Your task to perform on an android device: check the backup settings in the google photos Image 0: 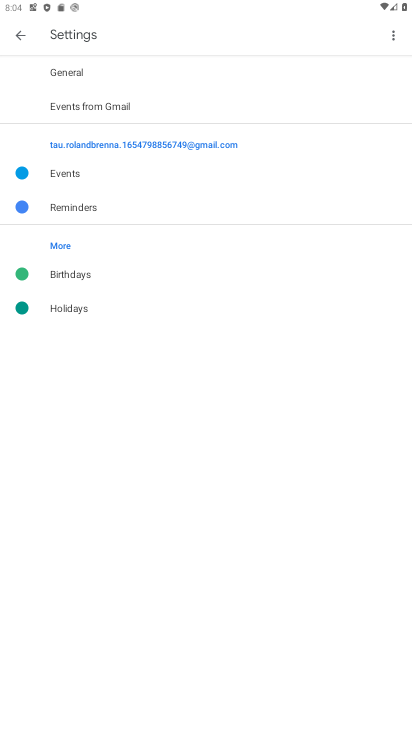
Step 0: press home button
Your task to perform on an android device: check the backup settings in the google photos Image 1: 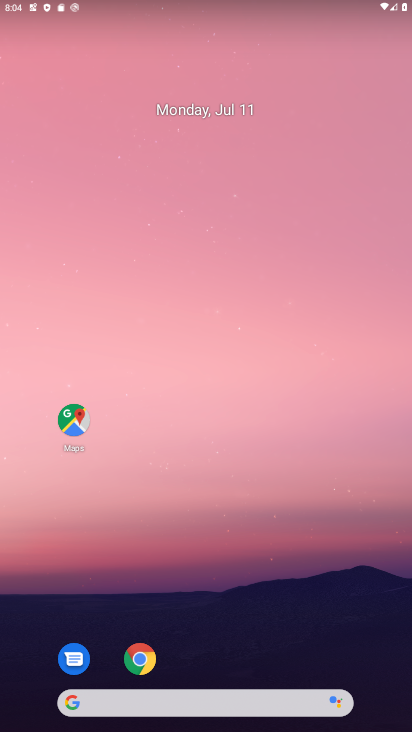
Step 1: drag from (203, 555) to (254, 367)
Your task to perform on an android device: check the backup settings in the google photos Image 2: 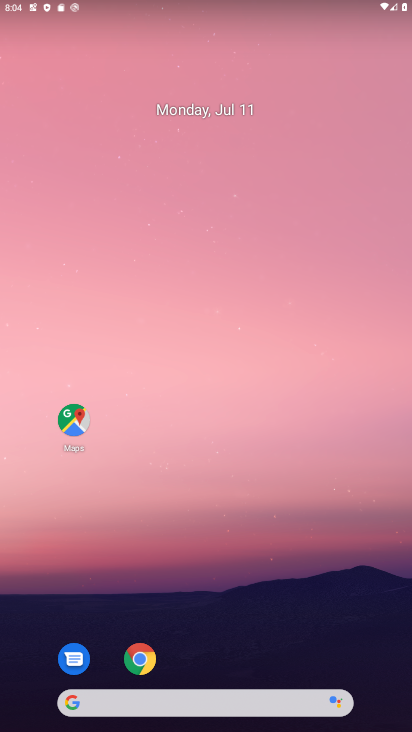
Step 2: drag from (203, 601) to (258, 323)
Your task to perform on an android device: check the backup settings in the google photos Image 3: 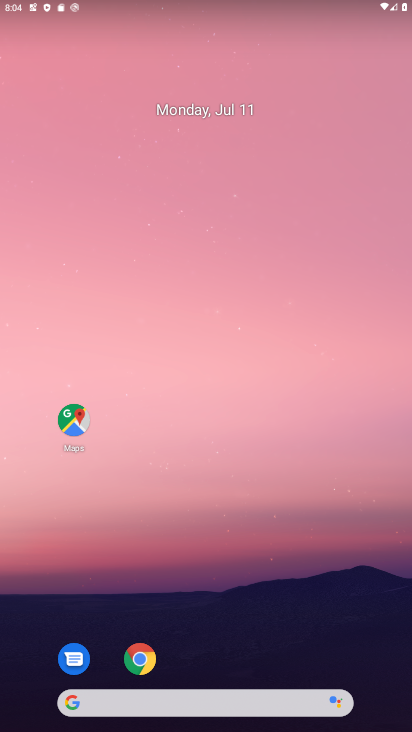
Step 3: drag from (209, 634) to (374, 30)
Your task to perform on an android device: check the backup settings in the google photos Image 4: 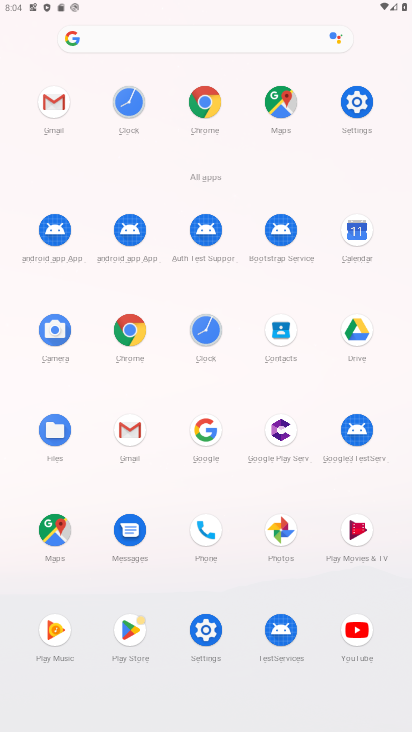
Step 4: click (284, 521)
Your task to perform on an android device: check the backup settings in the google photos Image 5: 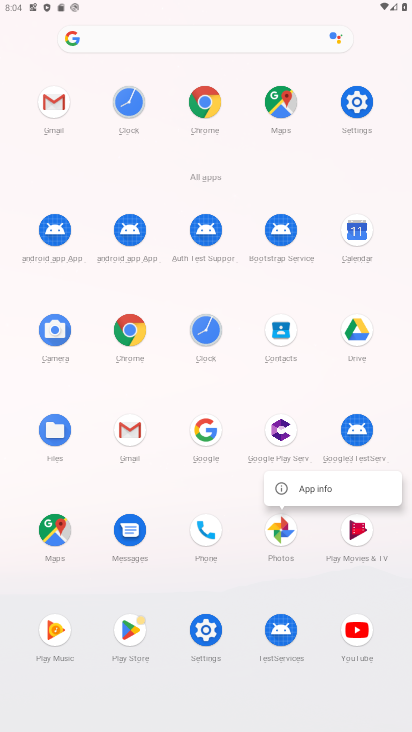
Step 5: click (303, 486)
Your task to perform on an android device: check the backup settings in the google photos Image 6: 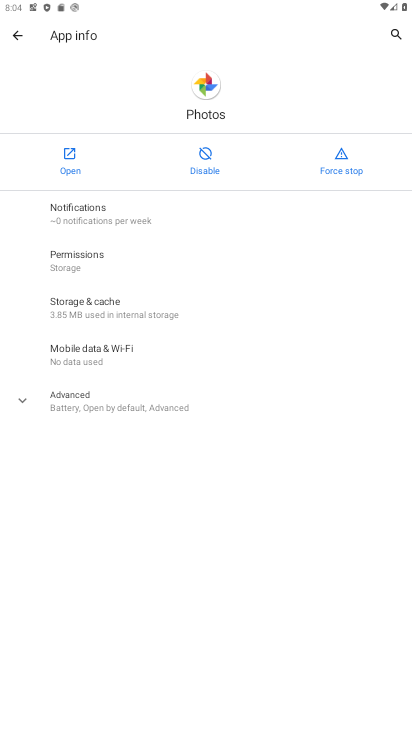
Step 6: click (72, 153)
Your task to perform on an android device: check the backup settings in the google photos Image 7: 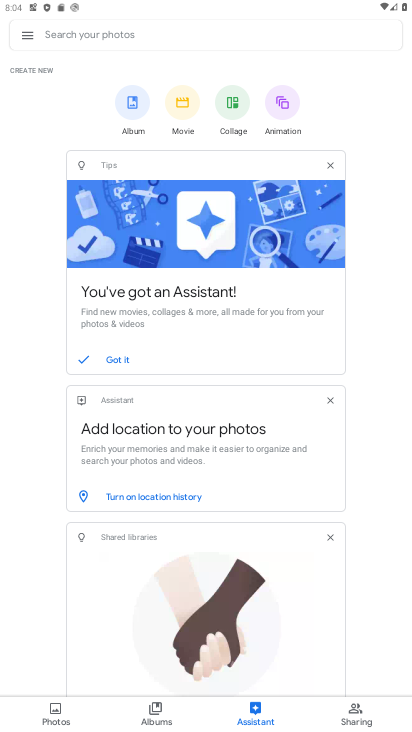
Step 7: click (29, 40)
Your task to perform on an android device: check the backup settings in the google photos Image 8: 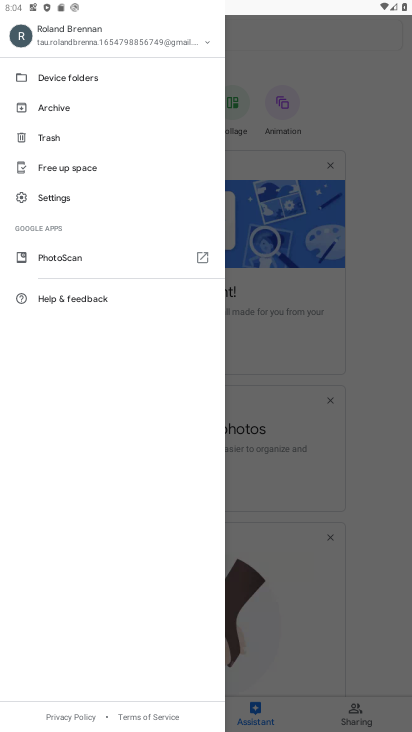
Step 8: click (56, 198)
Your task to perform on an android device: check the backup settings in the google photos Image 9: 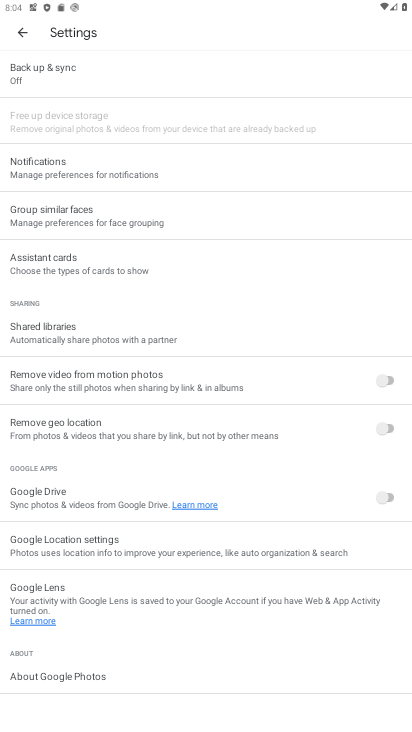
Step 9: drag from (160, 484) to (224, 159)
Your task to perform on an android device: check the backup settings in the google photos Image 10: 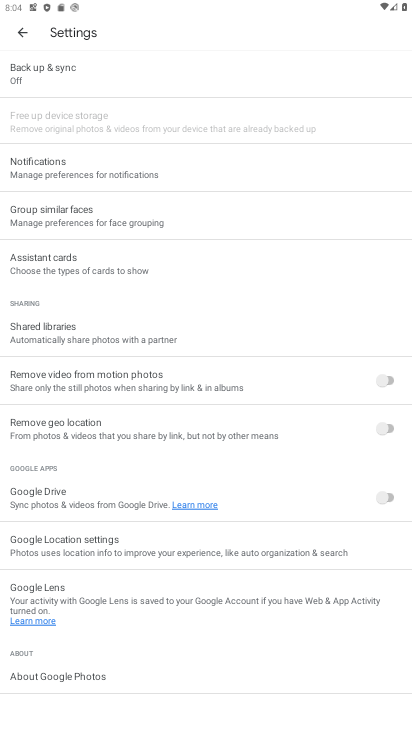
Step 10: click (109, 74)
Your task to perform on an android device: check the backup settings in the google photos Image 11: 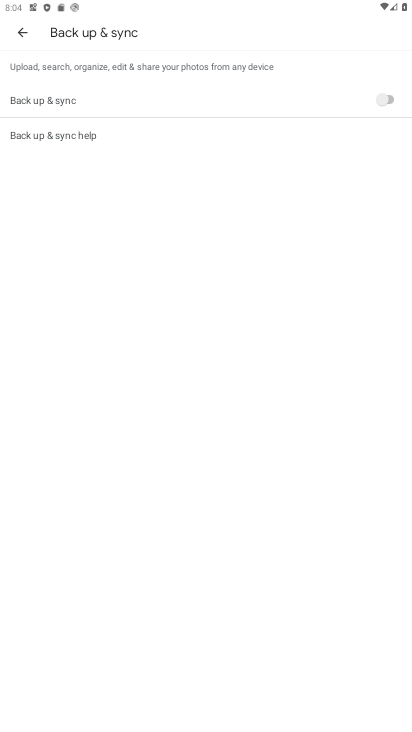
Step 11: task complete